Your task to perform on an android device: check data usage Image 0: 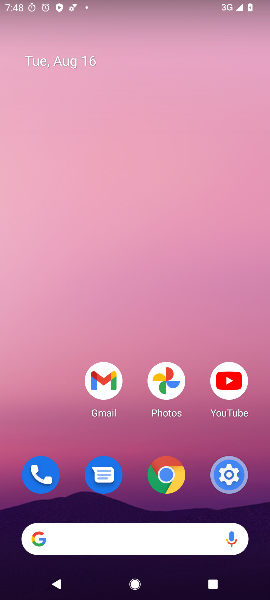
Step 0: drag from (218, 503) to (123, 10)
Your task to perform on an android device: check data usage Image 1: 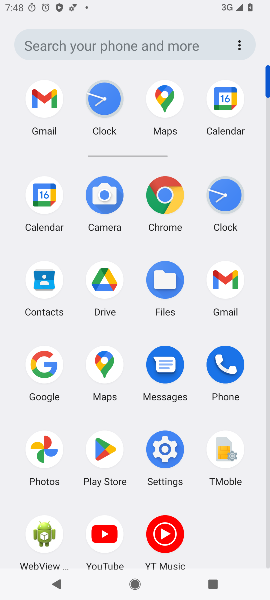
Step 1: click (163, 456)
Your task to perform on an android device: check data usage Image 2: 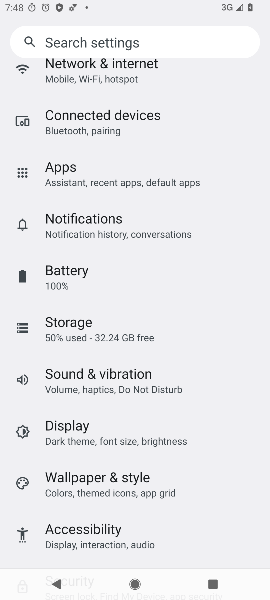
Step 2: drag from (74, 120) to (82, 456)
Your task to perform on an android device: check data usage Image 3: 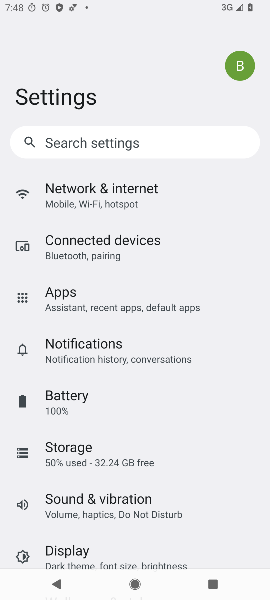
Step 3: click (107, 207)
Your task to perform on an android device: check data usage Image 4: 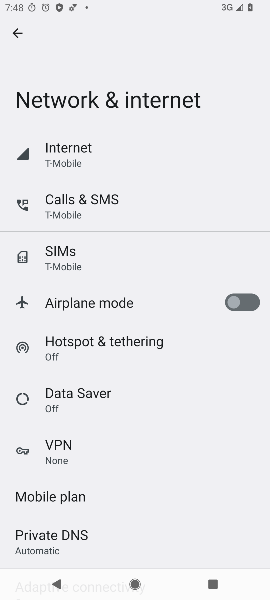
Step 4: task complete